Your task to perform on an android device: toggle priority inbox in the gmail app Image 0: 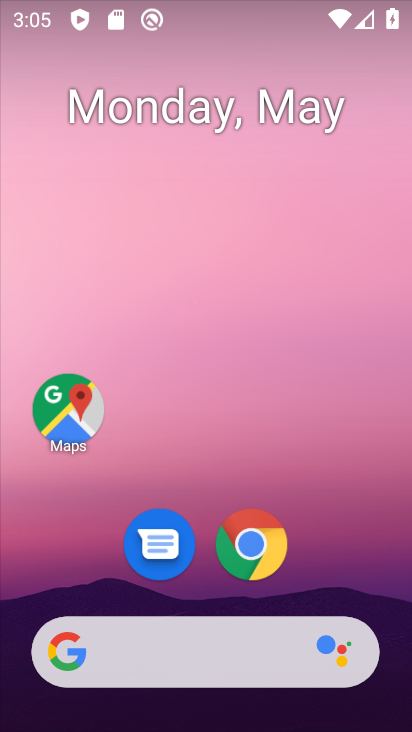
Step 0: drag from (273, 571) to (296, 5)
Your task to perform on an android device: toggle priority inbox in the gmail app Image 1: 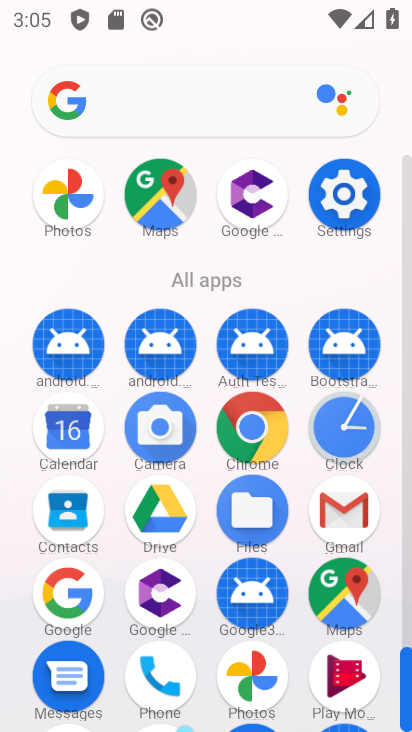
Step 1: click (354, 515)
Your task to perform on an android device: toggle priority inbox in the gmail app Image 2: 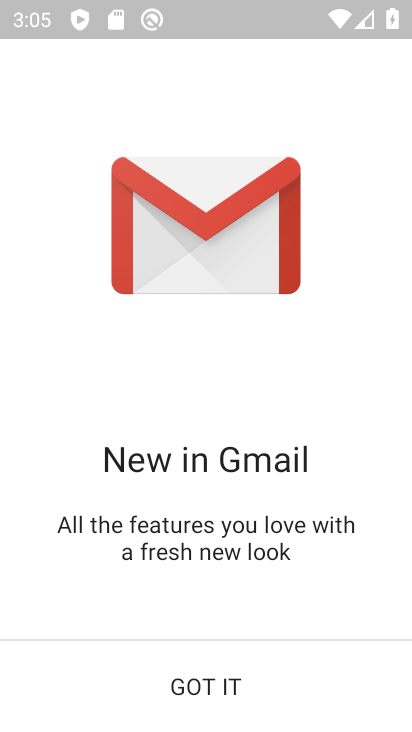
Step 2: click (279, 683)
Your task to perform on an android device: toggle priority inbox in the gmail app Image 3: 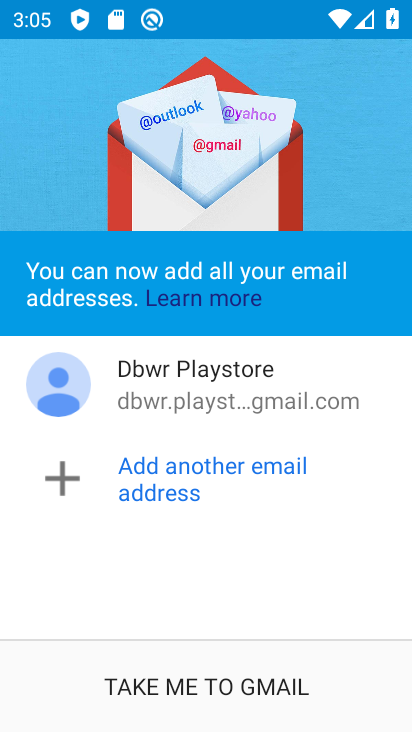
Step 3: click (194, 669)
Your task to perform on an android device: toggle priority inbox in the gmail app Image 4: 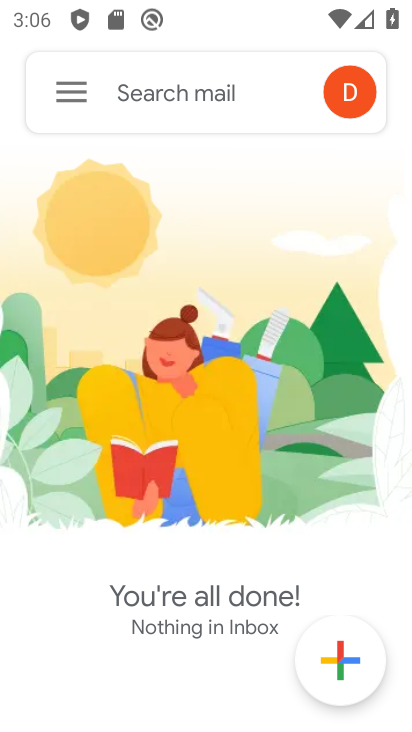
Step 4: click (53, 79)
Your task to perform on an android device: toggle priority inbox in the gmail app Image 5: 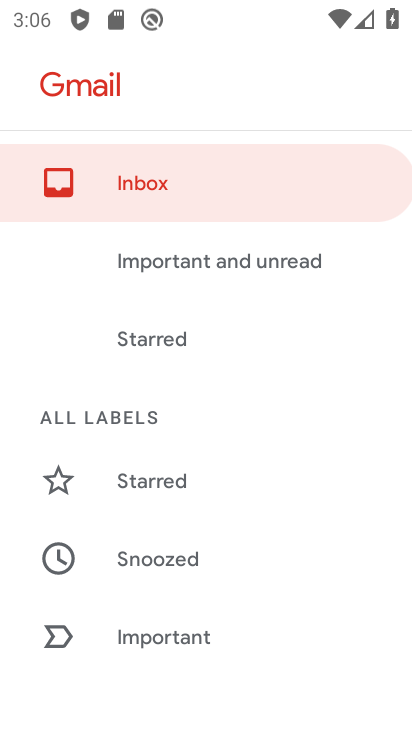
Step 5: drag from (224, 562) to (241, 87)
Your task to perform on an android device: toggle priority inbox in the gmail app Image 6: 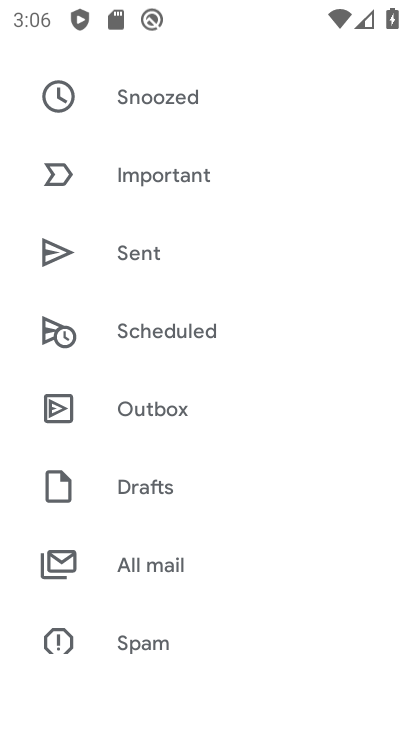
Step 6: drag from (247, 587) to (275, 151)
Your task to perform on an android device: toggle priority inbox in the gmail app Image 7: 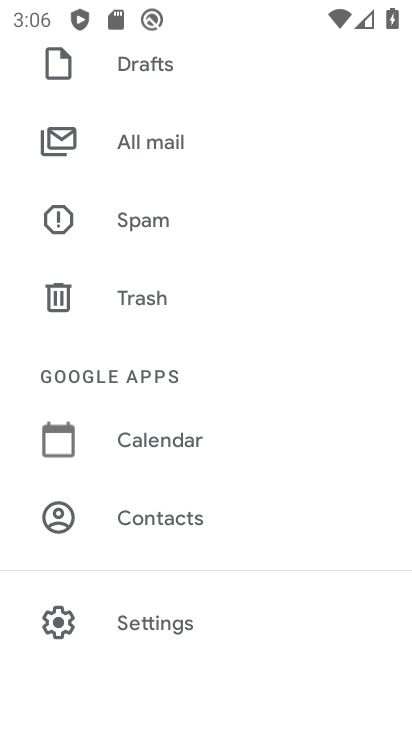
Step 7: click (175, 629)
Your task to perform on an android device: toggle priority inbox in the gmail app Image 8: 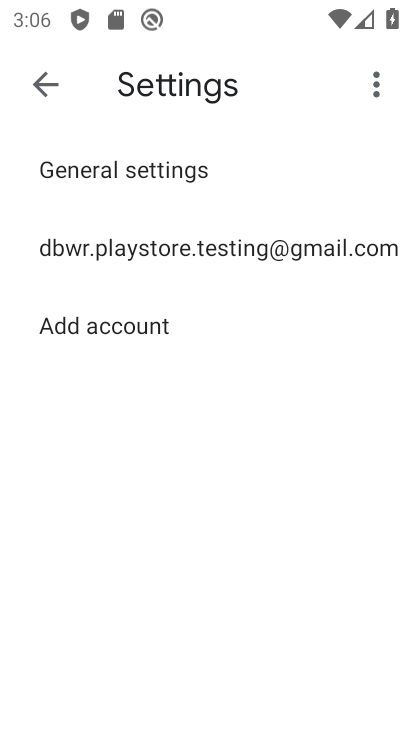
Step 8: click (147, 251)
Your task to perform on an android device: toggle priority inbox in the gmail app Image 9: 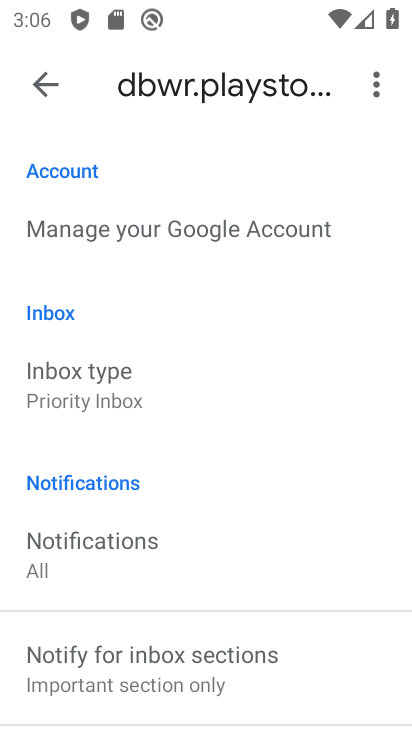
Step 9: click (119, 388)
Your task to perform on an android device: toggle priority inbox in the gmail app Image 10: 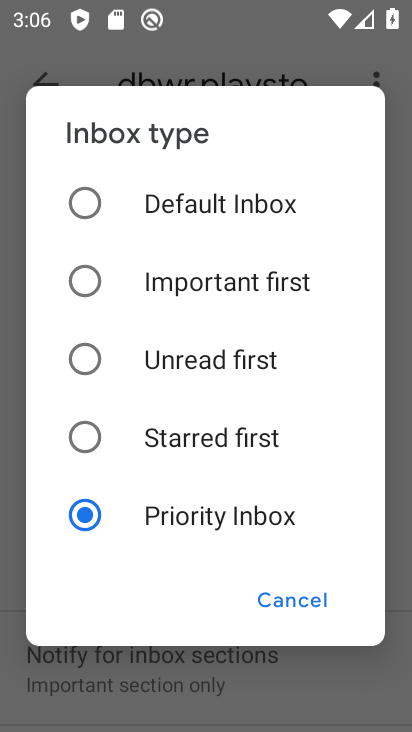
Step 10: click (81, 197)
Your task to perform on an android device: toggle priority inbox in the gmail app Image 11: 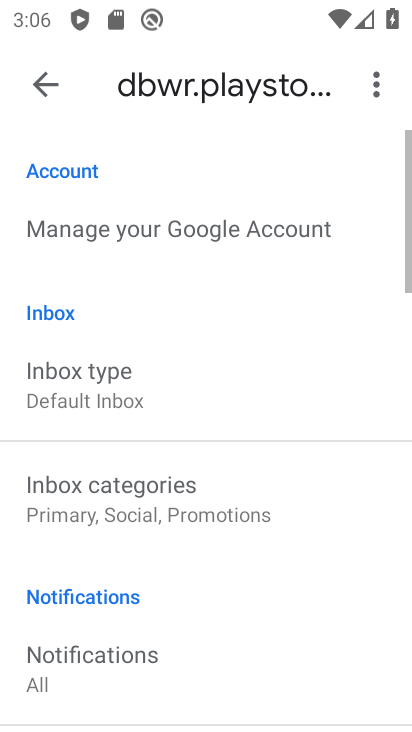
Step 11: task complete